Your task to perform on an android device: Open internet settings Image 0: 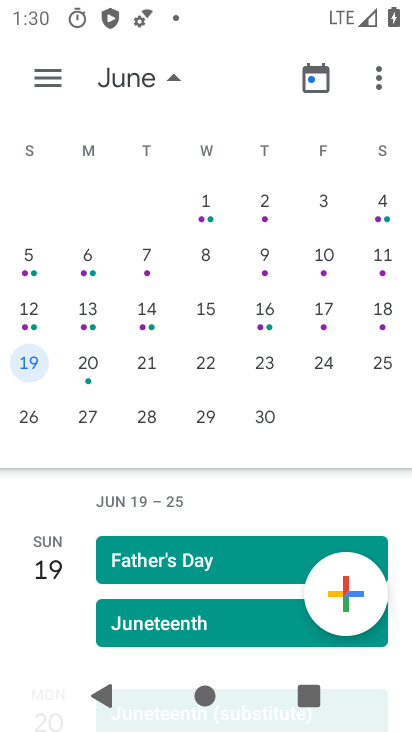
Step 0: press home button
Your task to perform on an android device: Open internet settings Image 1: 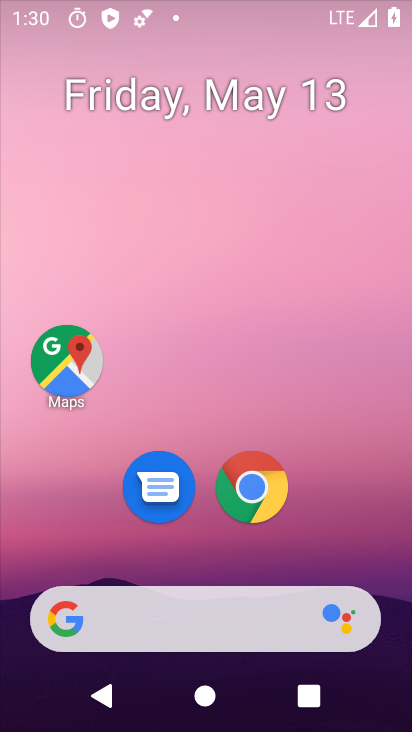
Step 1: drag from (370, 553) to (367, 243)
Your task to perform on an android device: Open internet settings Image 2: 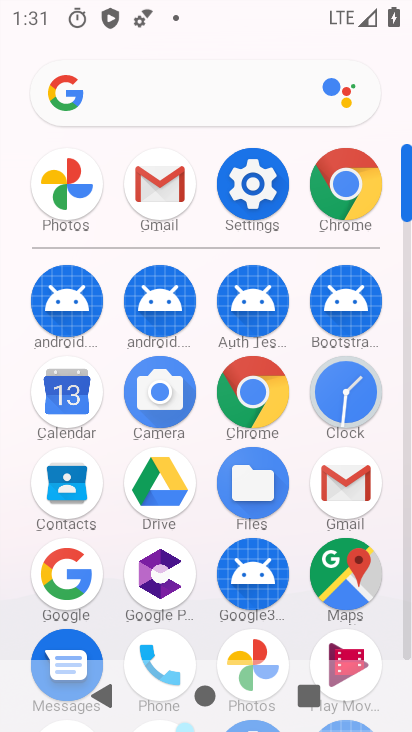
Step 2: click (266, 179)
Your task to perform on an android device: Open internet settings Image 3: 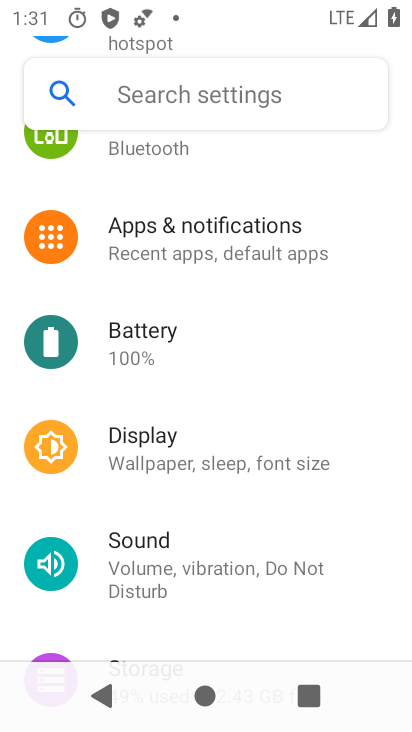
Step 3: drag from (222, 293) to (243, 553)
Your task to perform on an android device: Open internet settings Image 4: 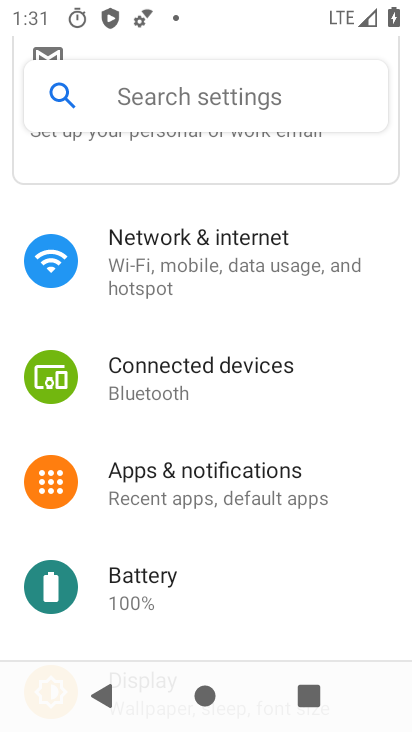
Step 4: click (210, 250)
Your task to perform on an android device: Open internet settings Image 5: 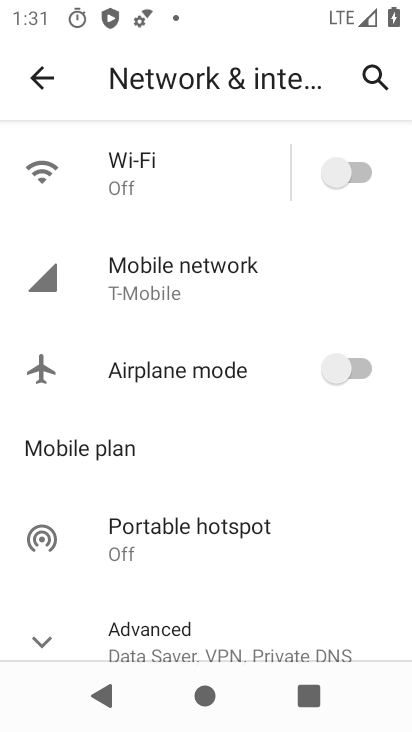
Step 5: click (180, 276)
Your task to perform on an android device: Open internet settings Image 6: 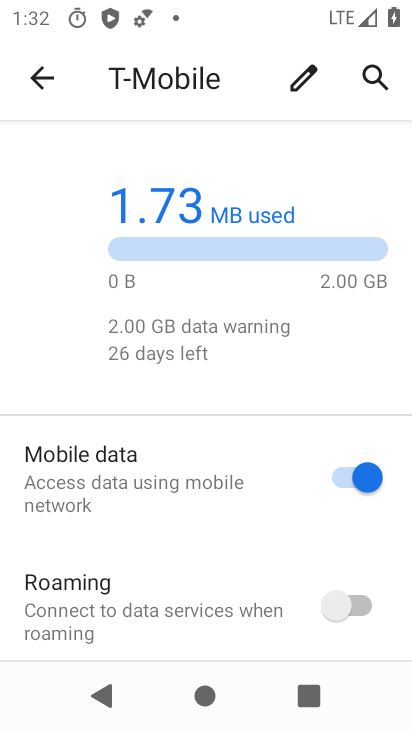
Step 6: task complete